Your task to perform on an android device: Open Google Maps and go to "Timeline" Image 0: 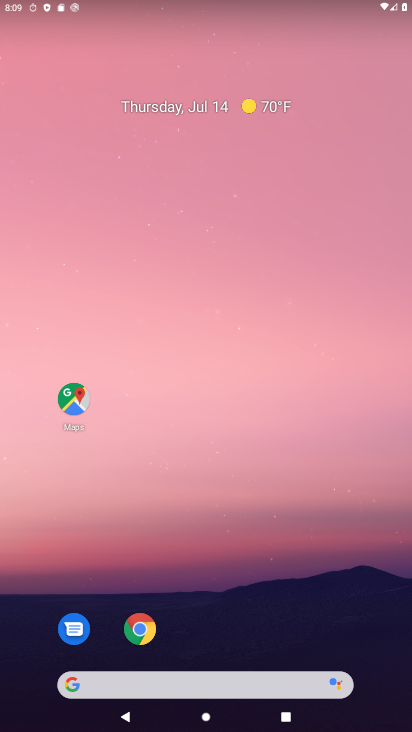
Step 0: drag from (342, 510) to (333, 65)
Your task to perform on an android device: Open Google Maps and go to "Timeline" Image 1: 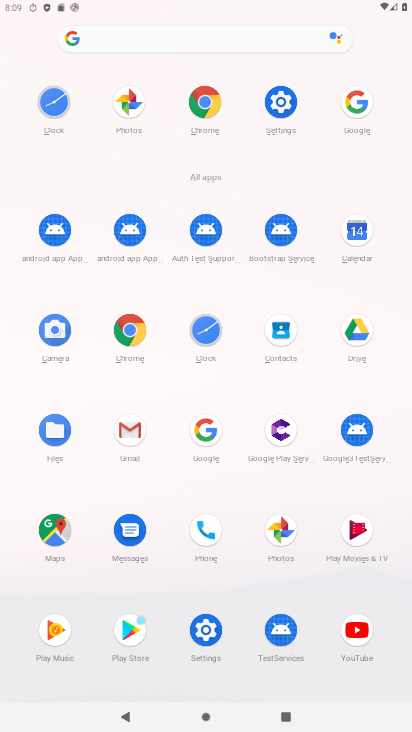
Step 1: click (59, 526)
Your task to perform on an android device: Open Google Maps and go to "Timeline" Image 2: 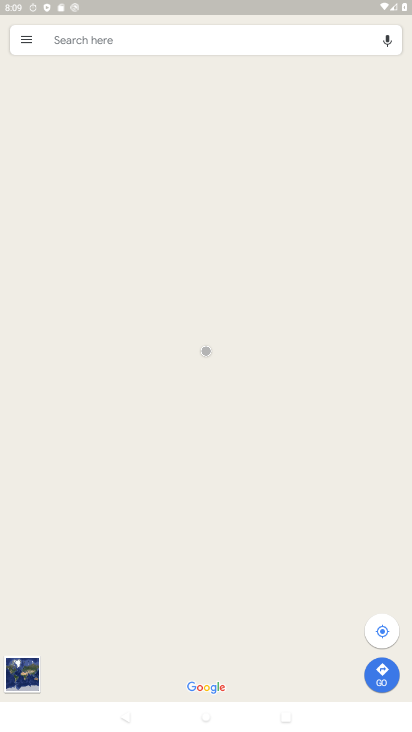
Step 2: click (31, 30)
Your task to perform on an android device: Open Google Maps and go to "Timeline" Image 3: 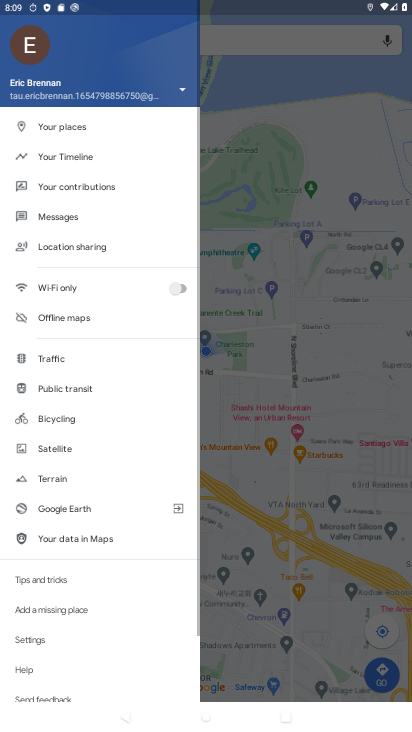
Step 3: click (43, 161)
Your task to perform on an android device: Open Google Maps and go to "Timeline" Image 4: 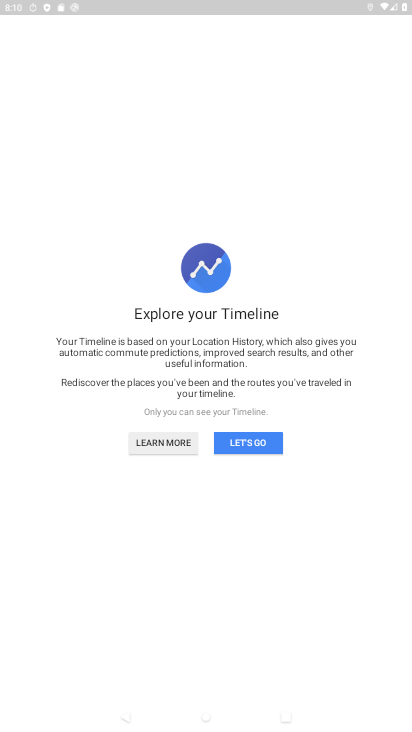
Step 4: click (237, 440)
Your task to perform on an android device: Open Google Maps and go to "Timeline" Image 5: 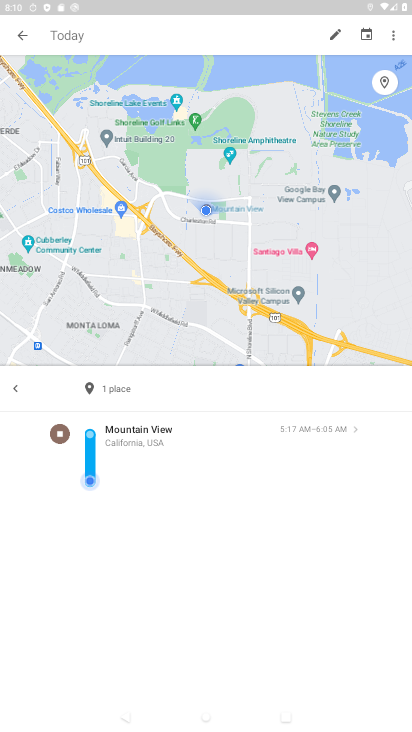
Step 5: task complete